Your task to perform on an android device: turn off picture-in-picture Image 0: 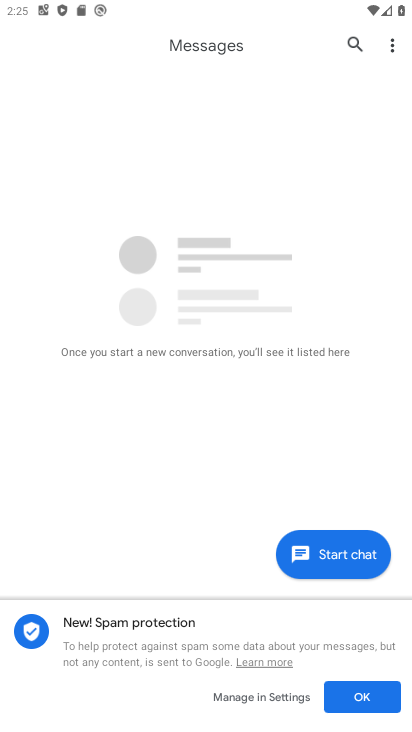
Step 0: press home button
Your task to perform on an android device: turn off picture-in-picture Image 1: 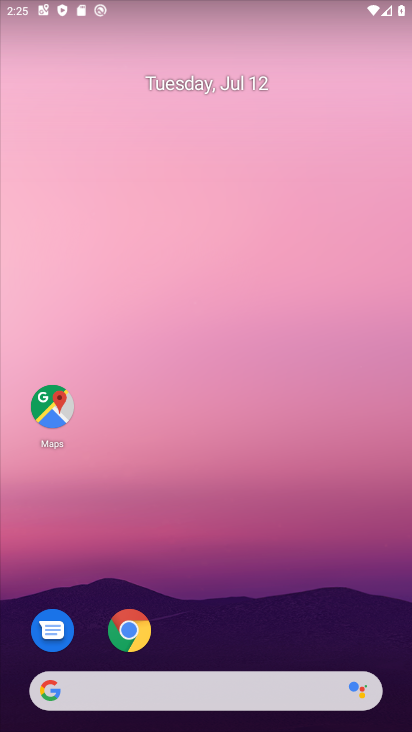
Step 1: drag from (389, 662) to (308, 183)
Your task to perform on an android device: turn off picture-in-picture Image 2: 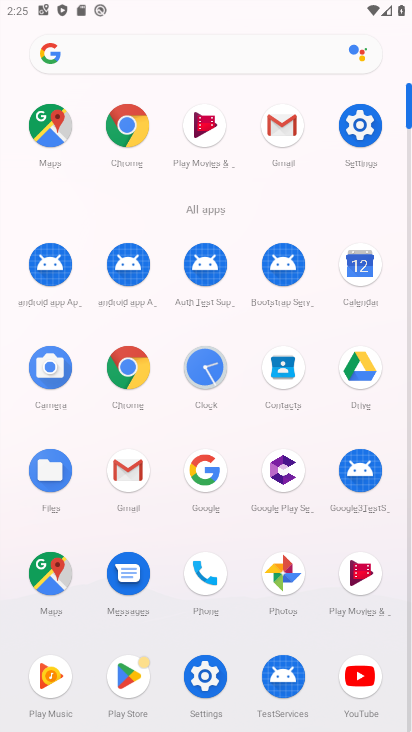
Step 2: click (204, 673)
Your task to perform on an android device: turn off picture-in-picture Image 3: 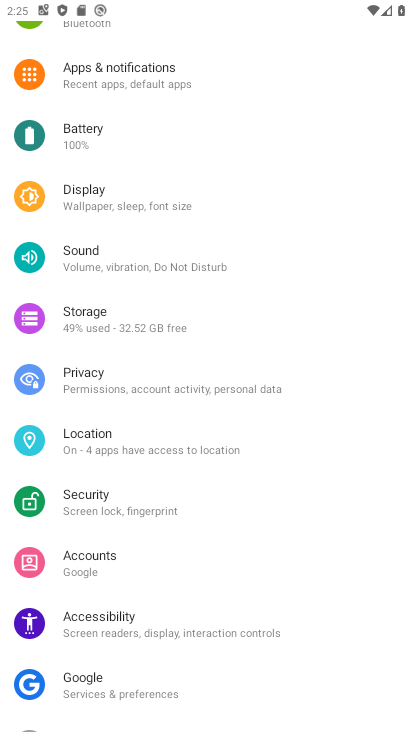
Step 3: click (107, 70)
Your task to perform on an android device: turn off picture-in-picture Image 4: 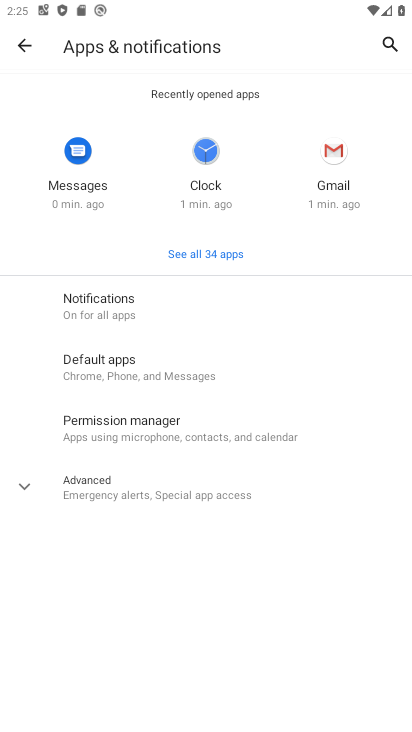
Step 4: click (24, 489)
Your task to perform on an android device: turn off picture-in-picture Image 5: 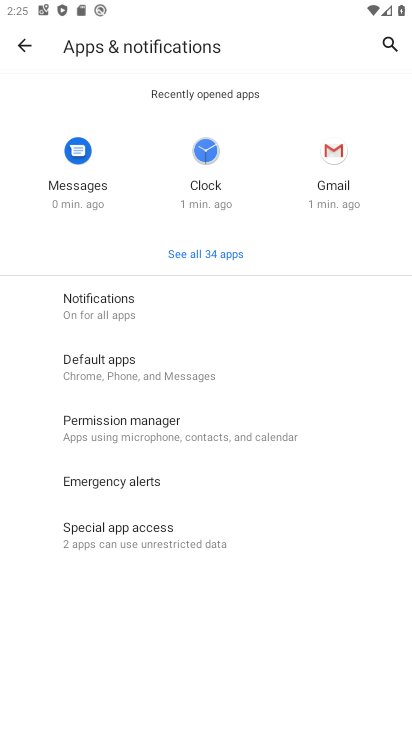
Step 5: click (99, 541)
Your task to perform on an android device: turn off picture-in-picture Image 6: 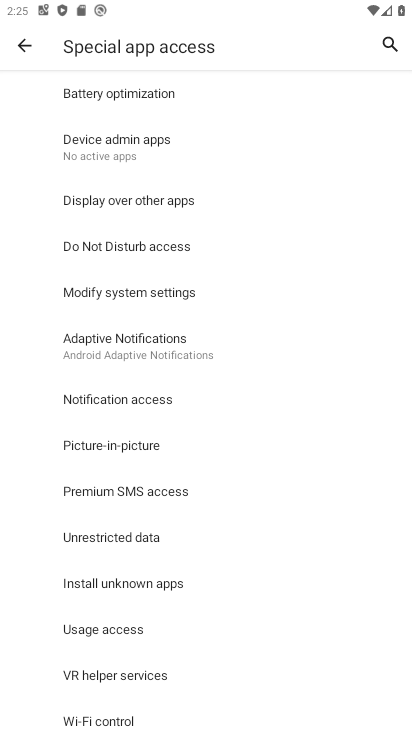
Step 6: click (100, 440)
Your task to perform on an android device: turn off picture-in-picture Image 7: 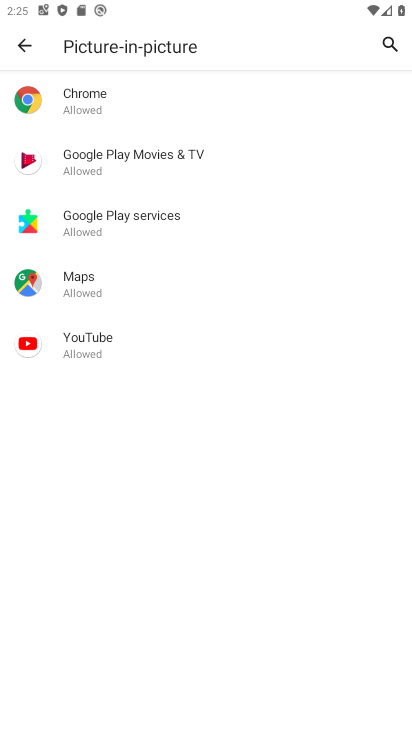
Step 7: click (83, 343)
Your task to perform on an android device: turn off picture-in-picture Image 8: 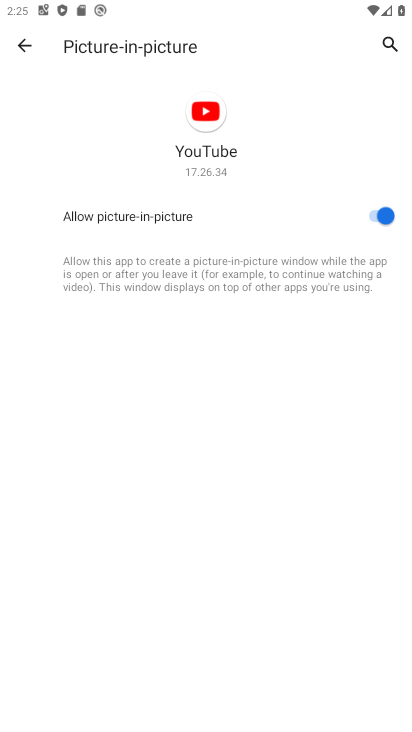
Step 8: click (369, 215)
Your task to perform on an android device: turn off picture-in-picture Image 9: 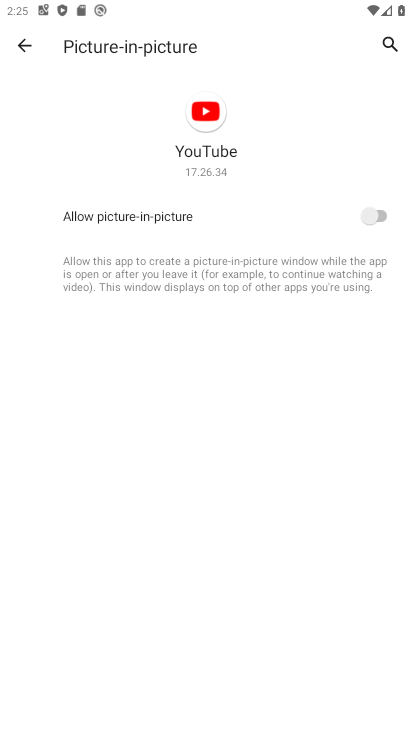
Step 9: task complete